Your task to perform on an android device: Open calendar and show me the fourth week of next month Image 0: 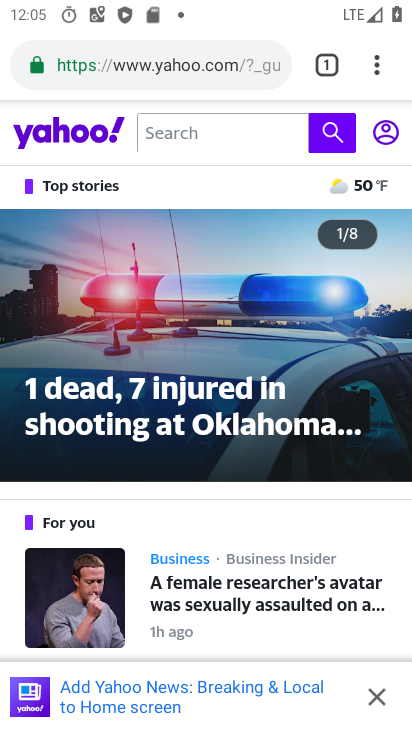
Step 0: press home button
Your task to perform on an android device: Open calendar and show me the fourth week of next month Image 1: 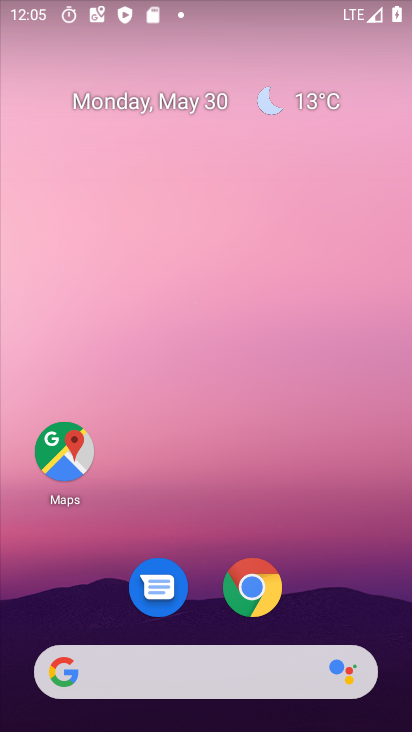
Step 1: drag from (341, 582) to (346, 60)
Your task to perform on an android device: Open calendar and show me the fourth week of next month Image 2: 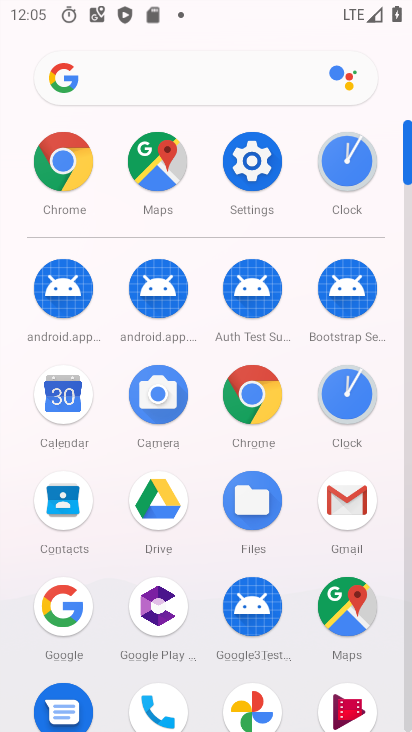
Step 2: click (53, 381)
Your task to perform on an android device: Open calendar and show me the fourth week of next month Image 3: 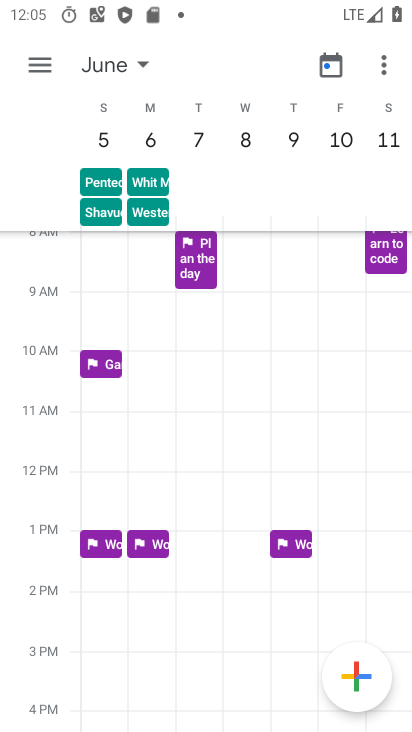
Step 3: click (110, 58)
Your task to perform on an android device: Open calendar and show me the fourth week of next month Image 4: 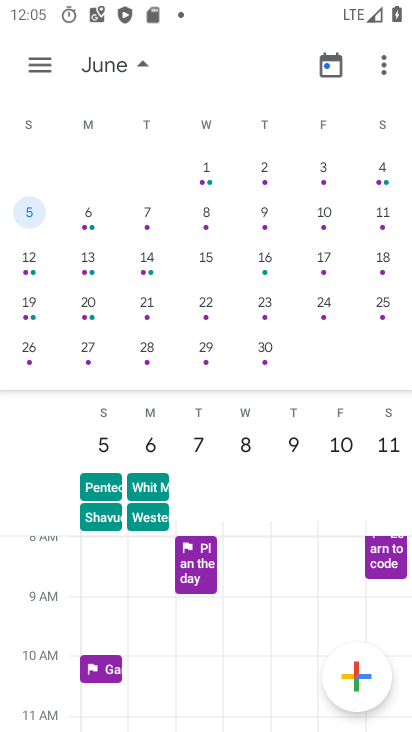
Step 4: click (22, 349)
Your task to perform on an android device: Open calendar and show me the fourth week of next month Image 5: 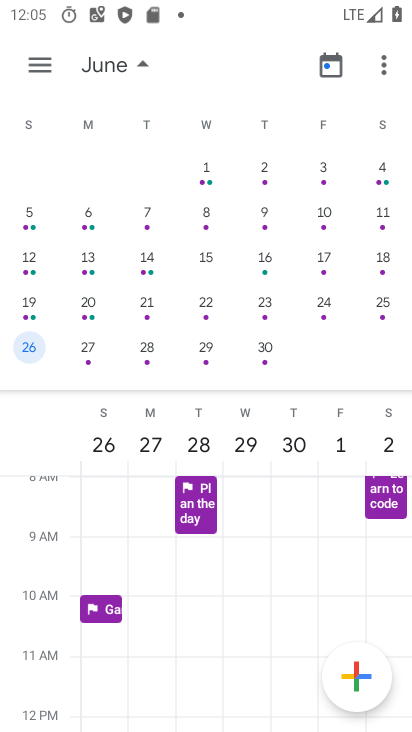
Step 5: task complete